Your task to perform on an android device: Go to network settings Image 0: 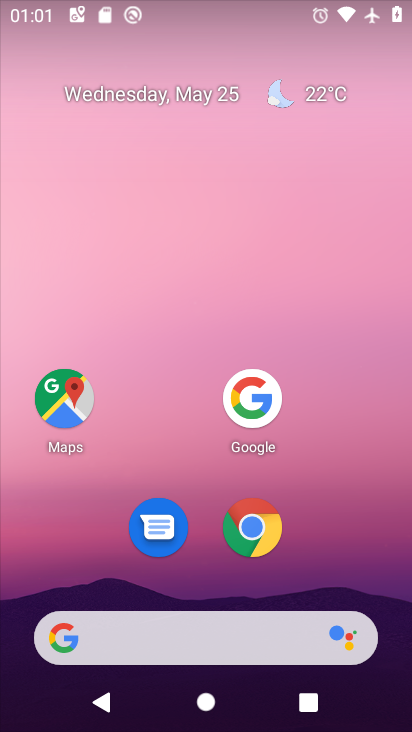
Step 0: press home button
Your task to perform on an android device: Go to network settings Image 1: 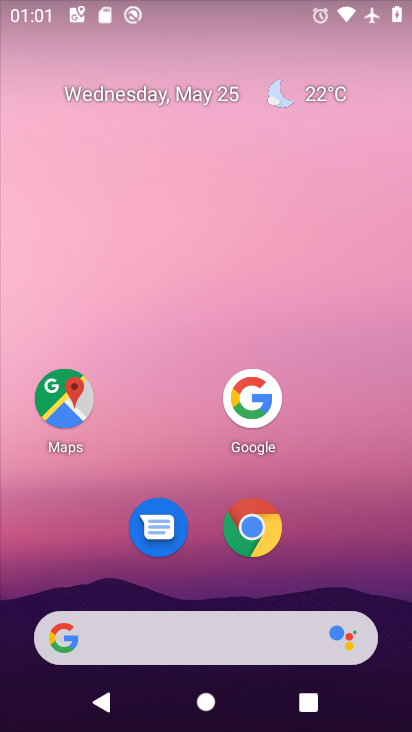
Step 1: drag from (166, 650) to (290, 152)
Your task to perform on an android device: Go to network settings Image 2: 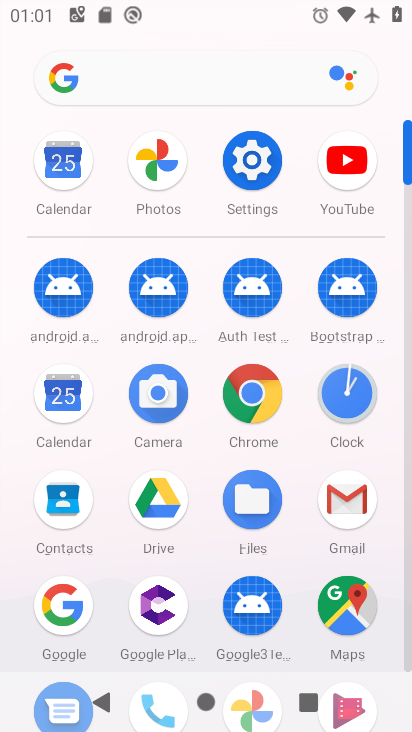
Step 2: click (233, 173)
Your task to perform on an android device: Go to network settings Image 3: 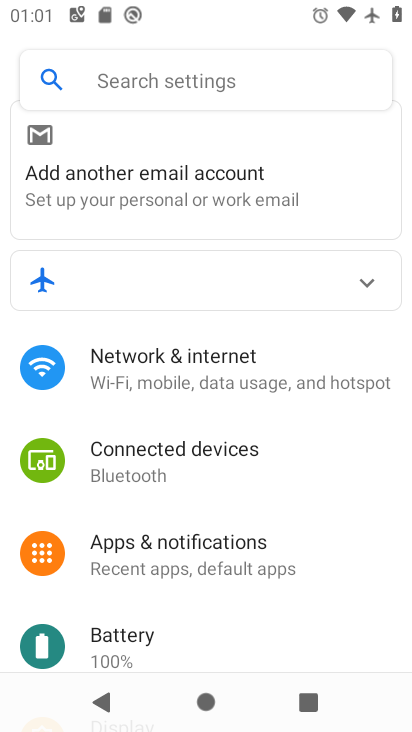
Step 3: click (208, 367)
Your task to perform on an android device: Go to network settings Image 4: 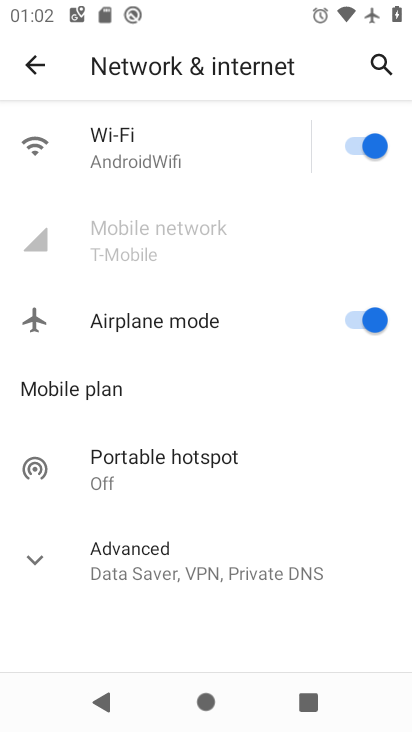
Step 4: task complete